Your task to perform on an android device: set the stopwatch Image 0: 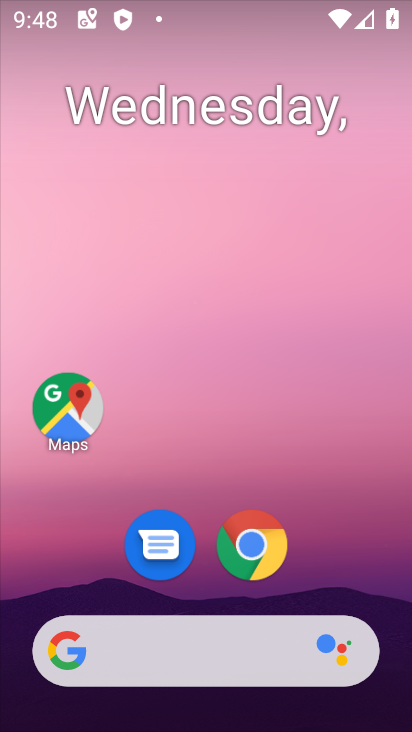
Step 0: drag from (327, 529) to (266, 63)
Your task to perform on an android device: set the stopwatch Image 1: 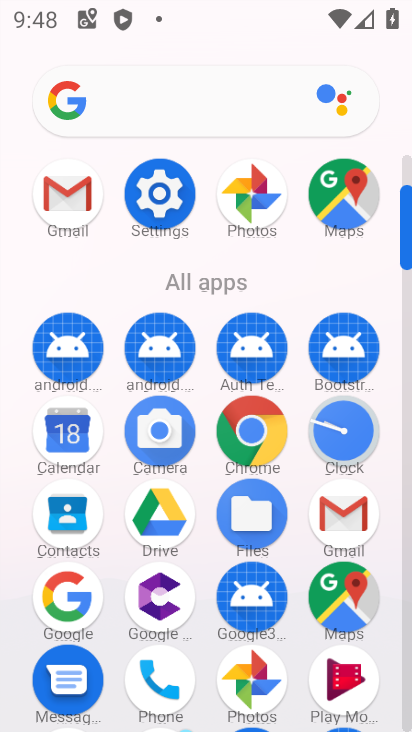
Step 1: click (335, 434)
Your task to perform on an android device: set the stopwatch Image 2: 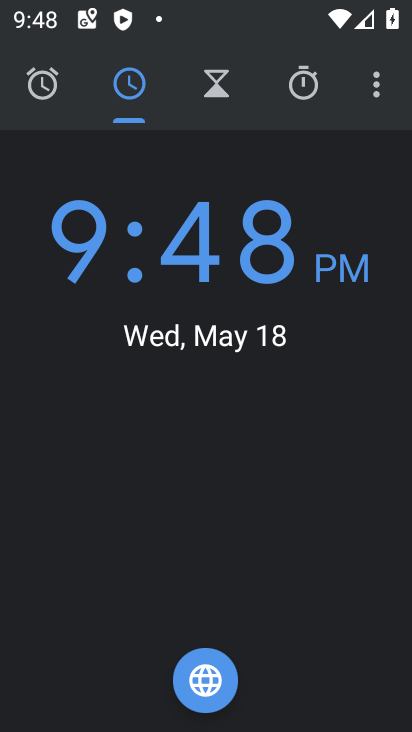
Step 2: click (297, 78)
Your task to perform on an android device: set the stopwatch Image 3: 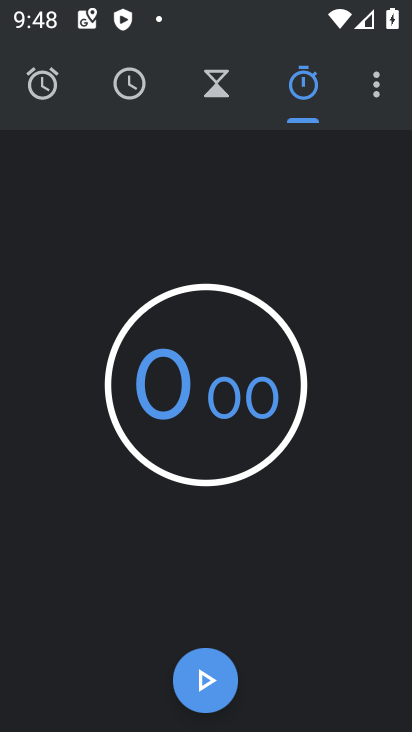
Step 3: task complete